Your task to perform on an android device: Open eBay Image 0: 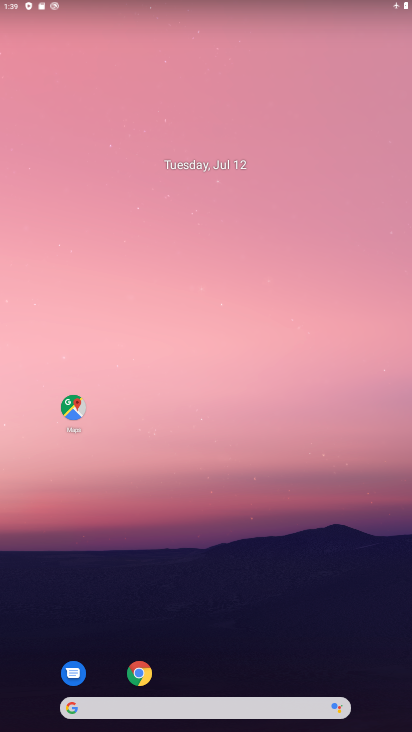
Step 0: click (144, 660)
Your task to perform on an android device: Open eBay Image 1: 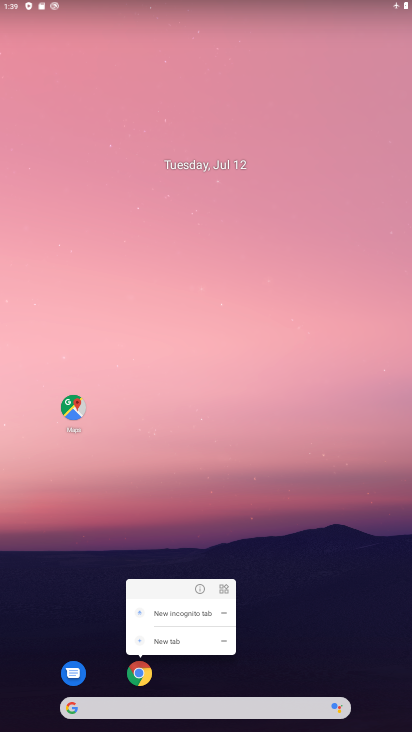
Step 1: click (142, 668)
Your task to perform on an android device: Open eBay Image 2: 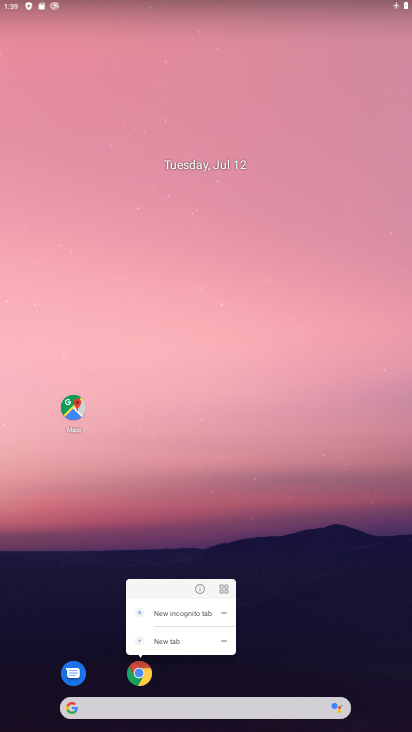
Step 2: click (142, 668)
Your task to perform on an android device: Open eBay Image 3: 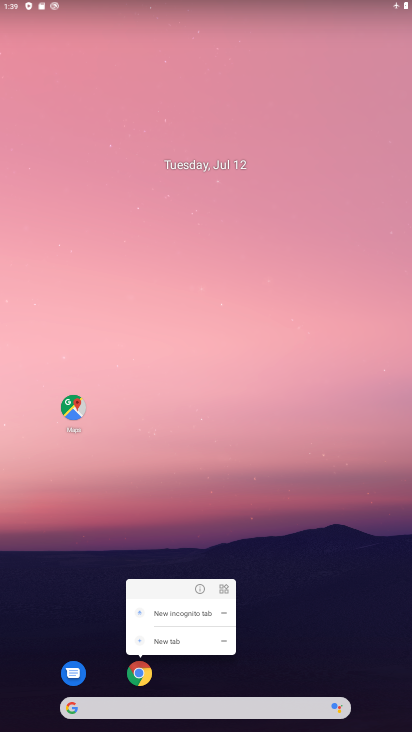
Step 3: click (142, 668)
Your task to perform on an android device: Open eBay Image 4: 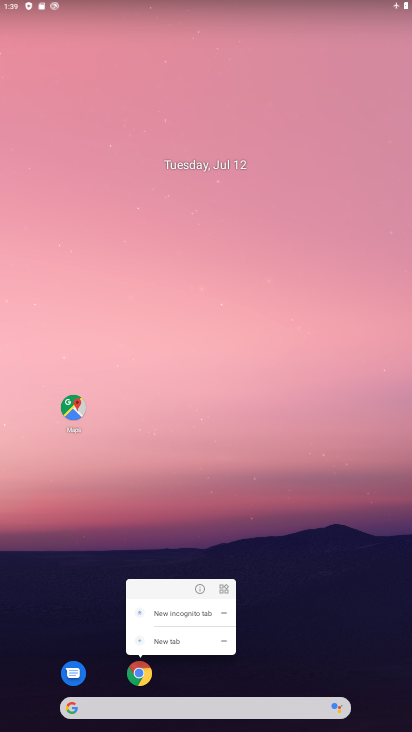
Step 4: click (133, 681)
Your task to perform on an android device: Open eBay Image 5: 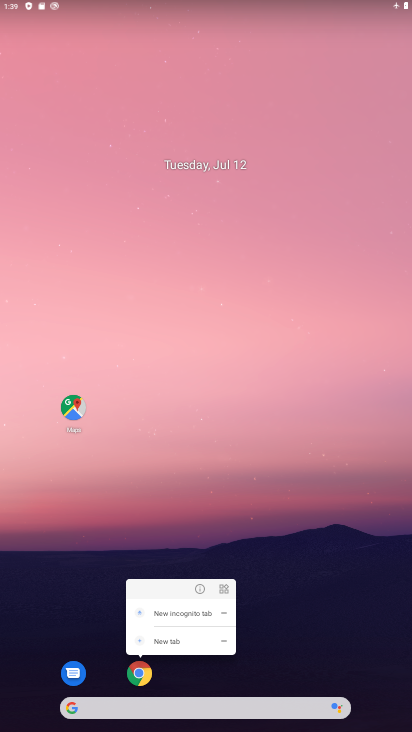
Step 5: click (139, 664)
Your task to perform on an android device: Open eBay Image 6: 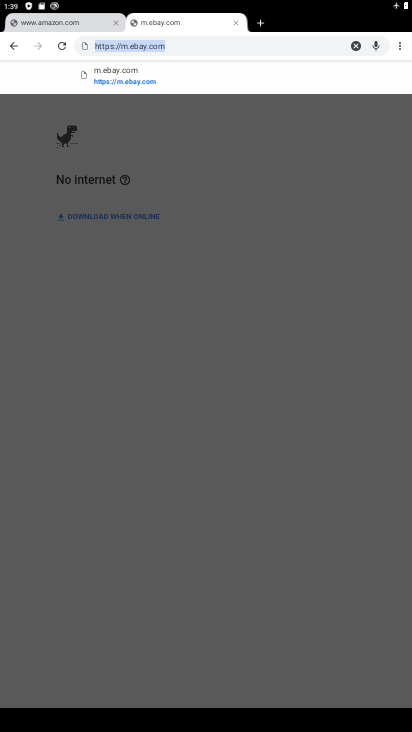
Step 6: click (393, 45)
Your task to perform on an android device: Open eBay Image 7: 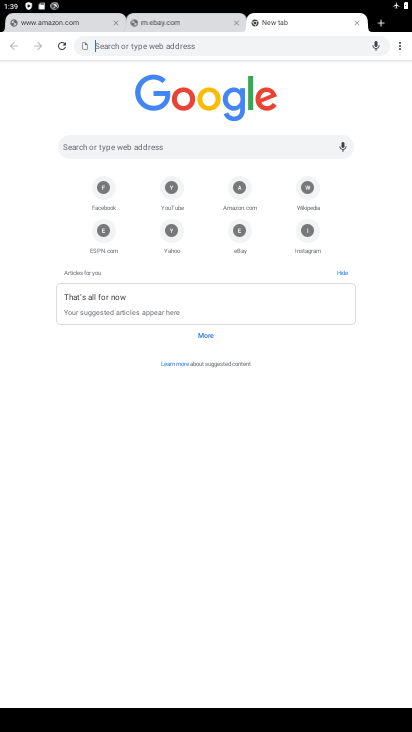
Step 7: click (248, 221)
Your task to perform on an android device: Open eBay Image 8: 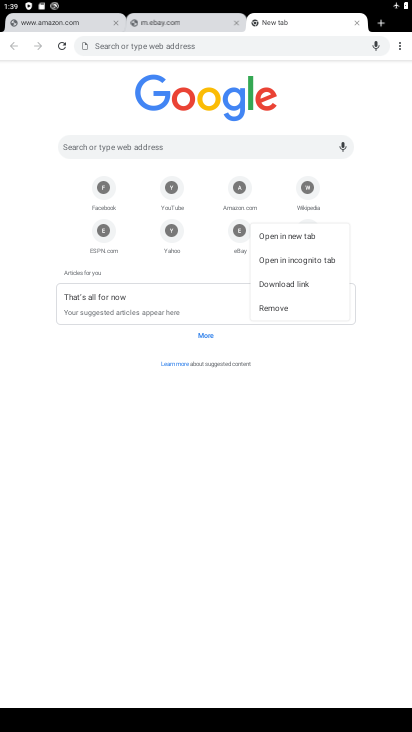
Step 8: click (233, 234)
Your task to perform on an android device: Open eBay Image 9: 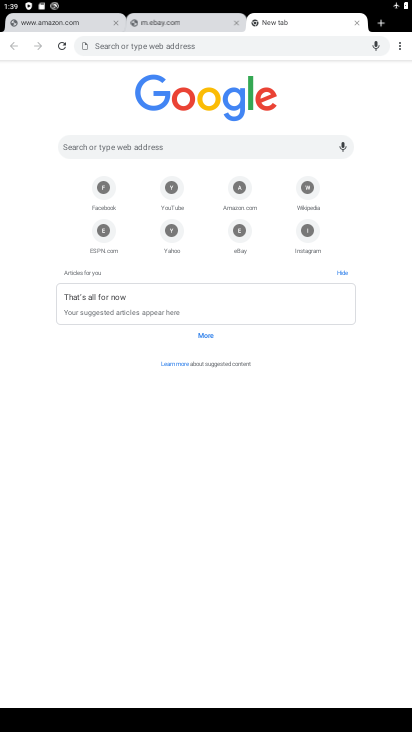
Step 9: click (233, 234)
Your task to perform on an android device: Open eBay Image 10: 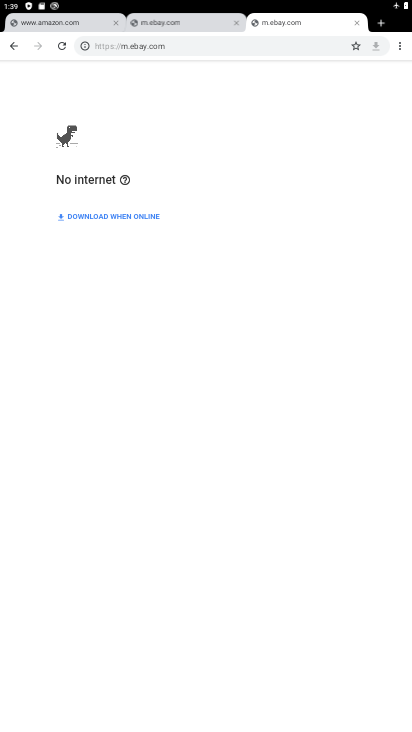
Step 10: task complete